Your task to perform on an android device: Open display settings Image 0: 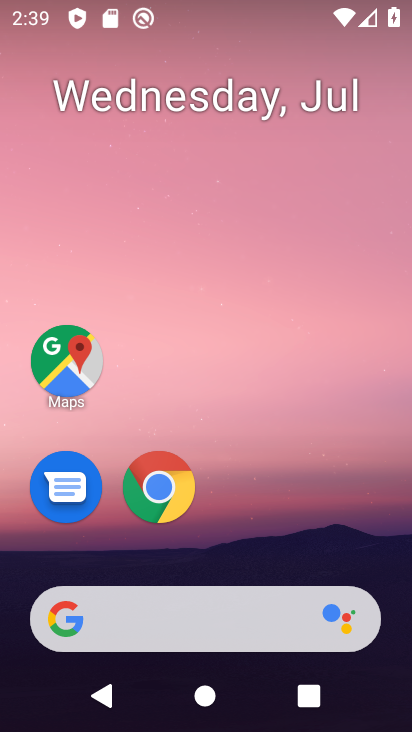
Step 0: drag from (307, 176) to (289, 7)
Your task to perform on an android device: Open display settings Image 1: 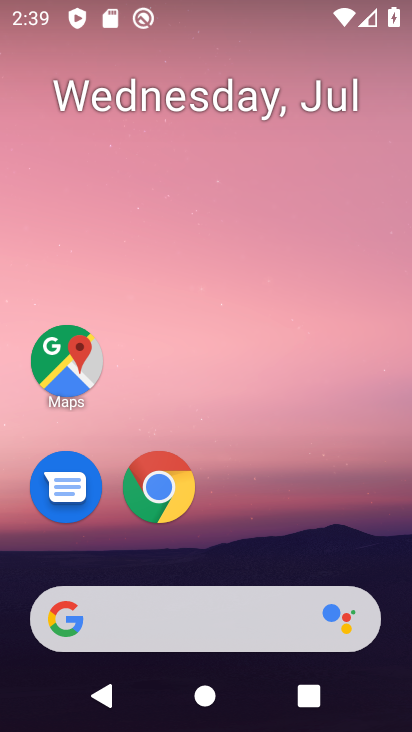
Step 1: drag from (383, 560) to (333, 8)
Your task to perform on an android device: Open display settings Image 2: 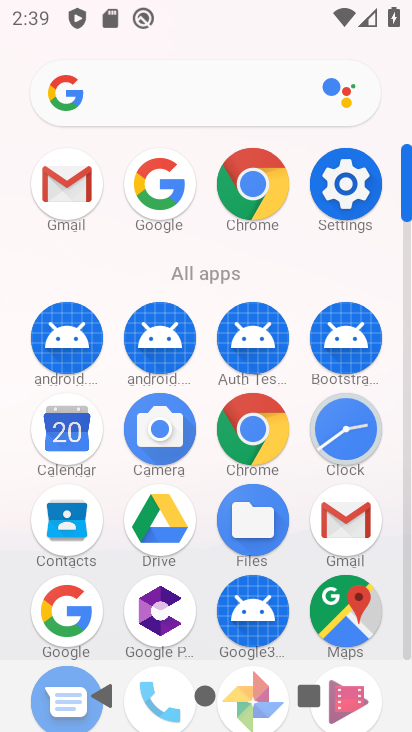
Step 2: click (359, 192)
Your task to perform on an android device: Open display settings Image 3: 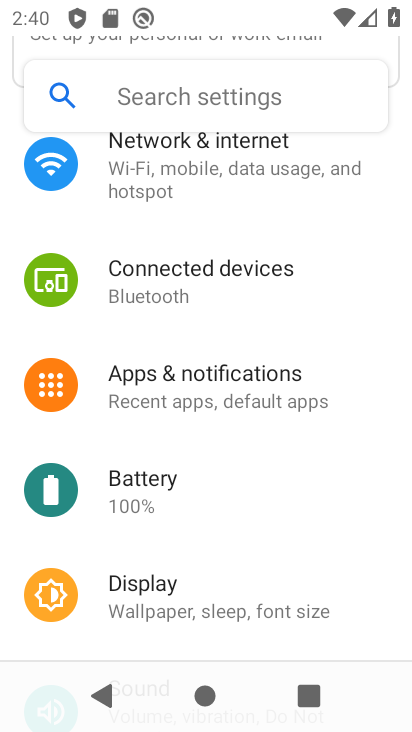
Step 3: click (251, 594)
Your task to perform on an android device: Open display settings Image 4: 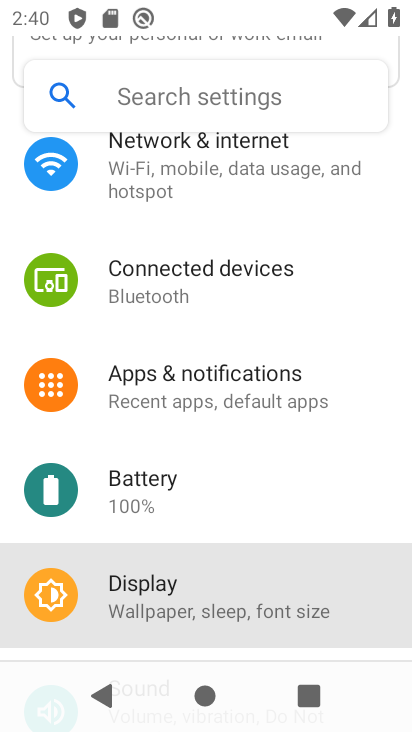
Step 4: click (220, 606)
Your task to perform on an android device: Open display settings Image 5: 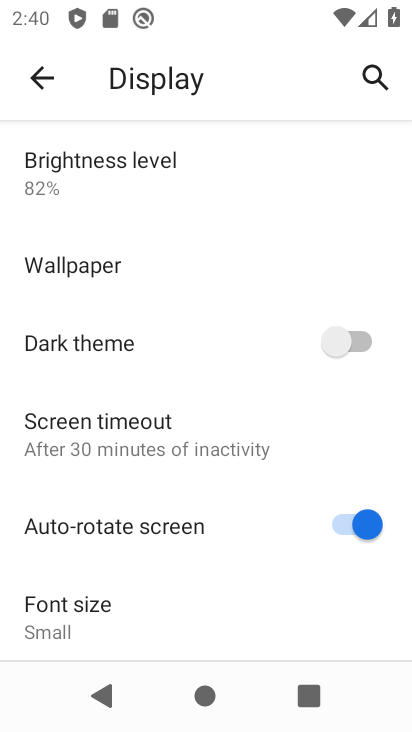
Step 5: task complete